Your task to perform on an android device: open a bookmark in the chrome app Image 0: 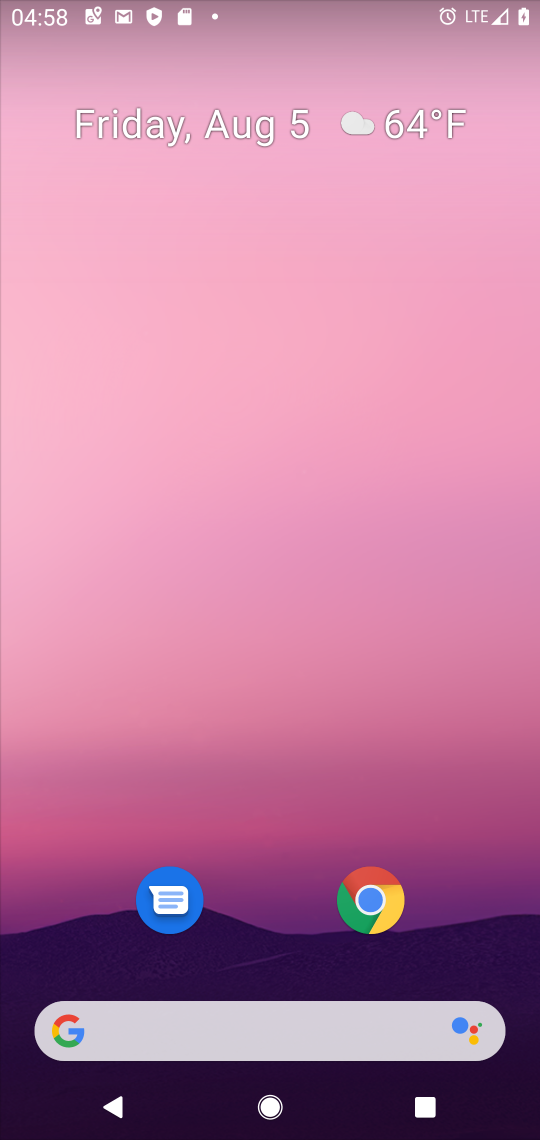
Step 0: click (368, 892)
Your task to perform on an android device: open a bookmark in the chrome app Image 1: 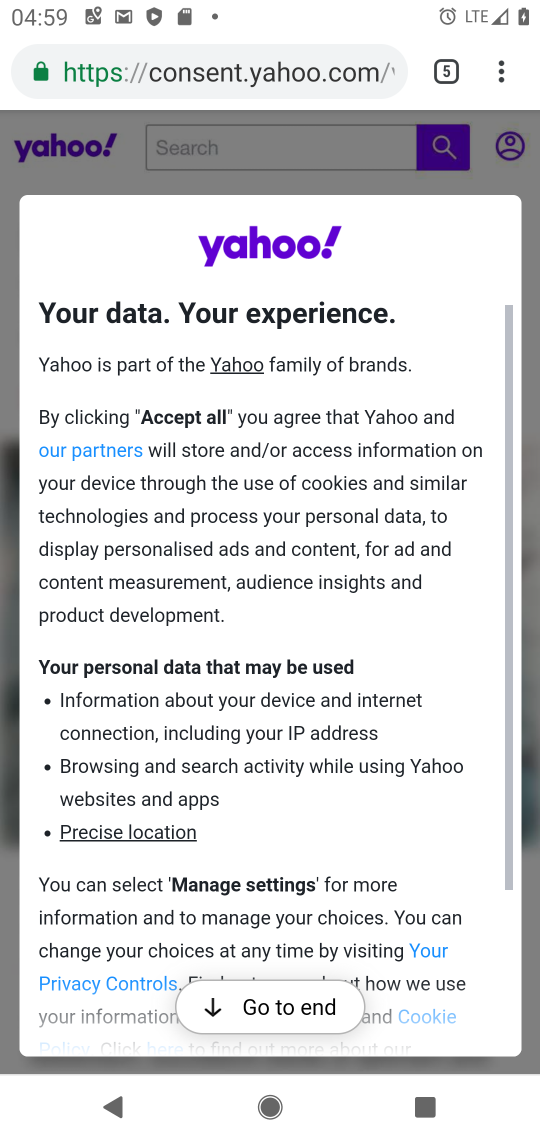
Step 1: drag from (504, 65) to (311, 275)
Your task to perform on an android device: open a bookmark in the chrome app Image 2: 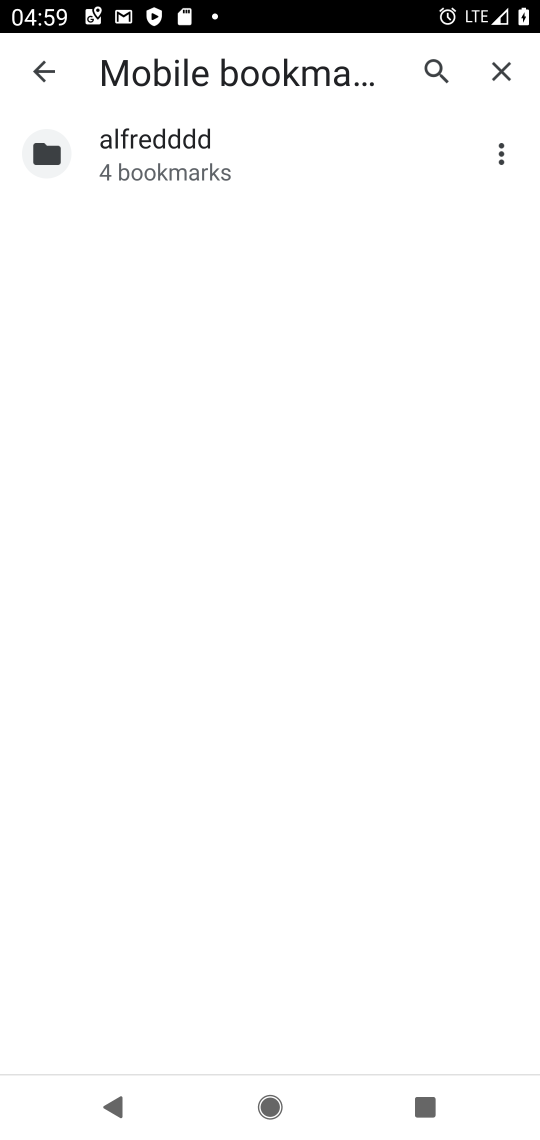
Step 2: click (90, 173)
Your task to perform on an android device: open a bookmark in the chrome app Image 3: 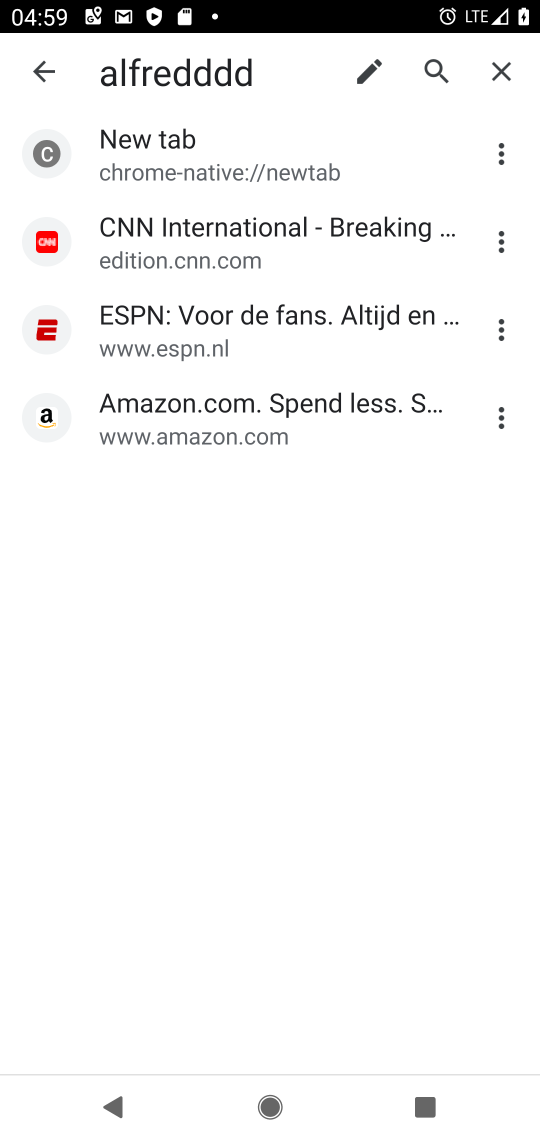
Step 3: click (211, 241)
Your task to perform on an android device: open a bookmark in the chrome app Image 4: 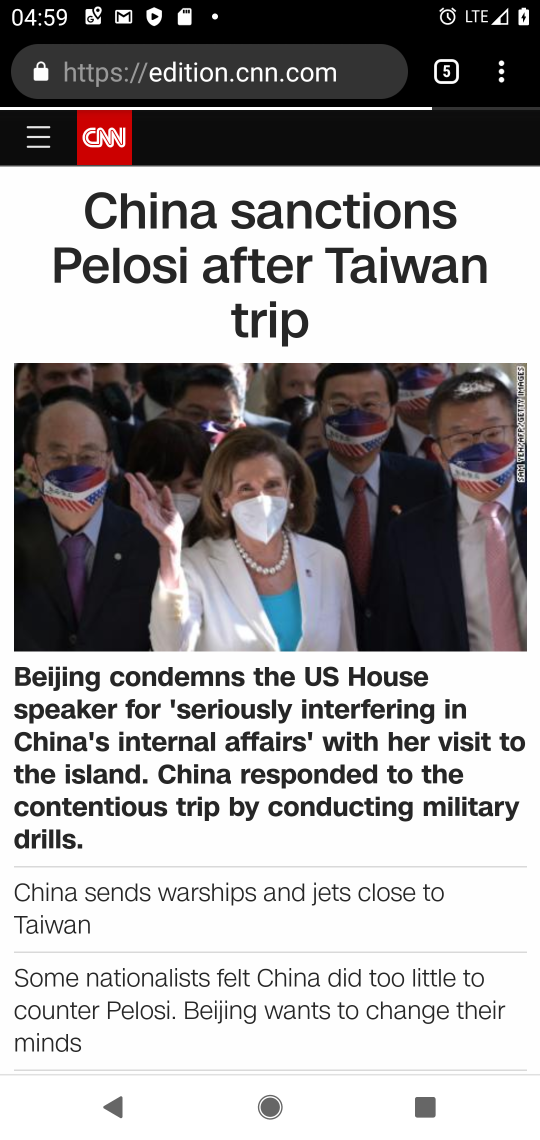
Step 4: task complete